Your task to perform on an android device: Search for flights from NYC to Buenos aires Image 0: 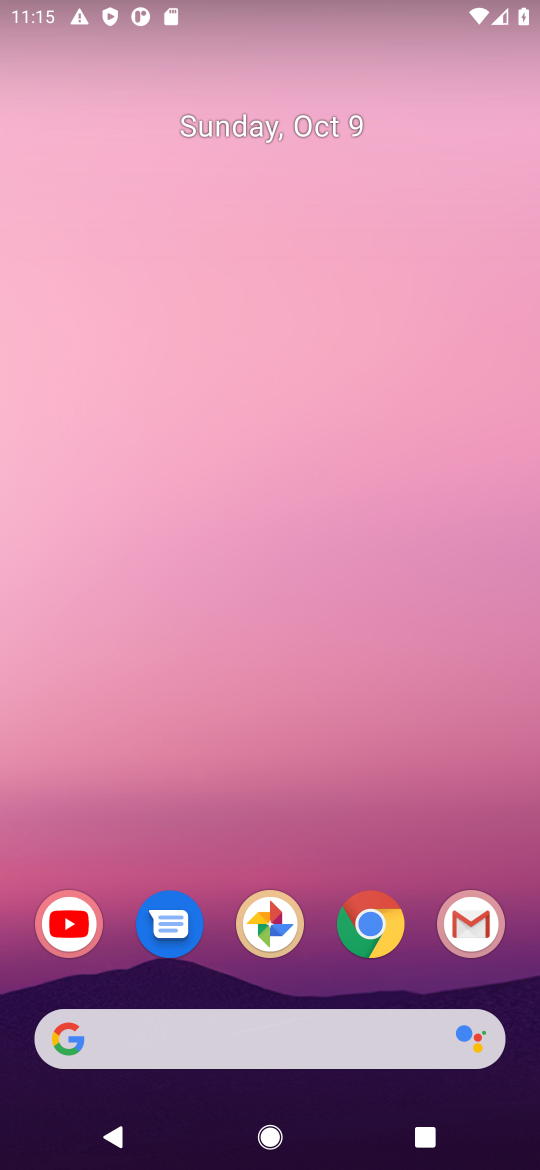
Step 0: drag from (290, 991) to (261, 47)
Your task to perform on an android device: Search for flights from NYC to Buenos aires Image 1: 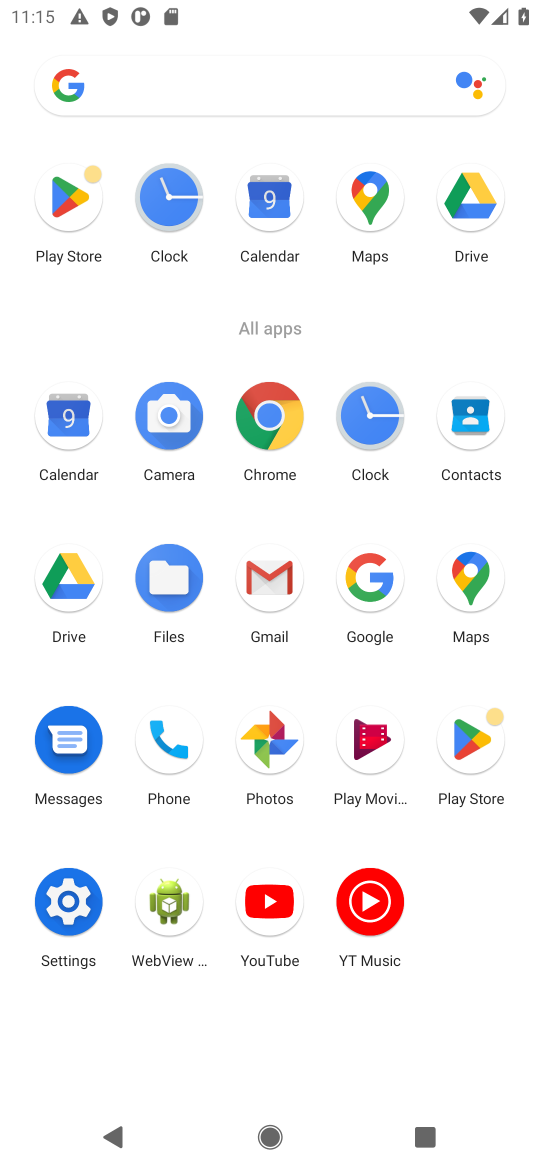
Step 1: click (259, 410)
Your task to perform on an android device: Search for flights from NYC to Buenos aires Image 2: 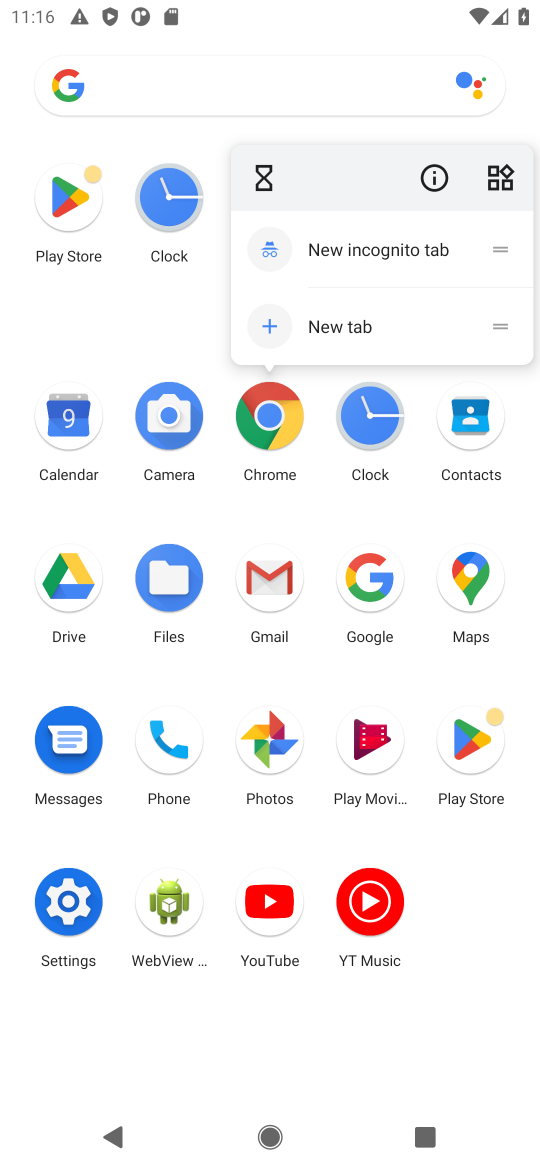
Step 2: click (261, 410)
Your task to perform on an android device: Search for flights from NYC to Buenos aires Image 3: 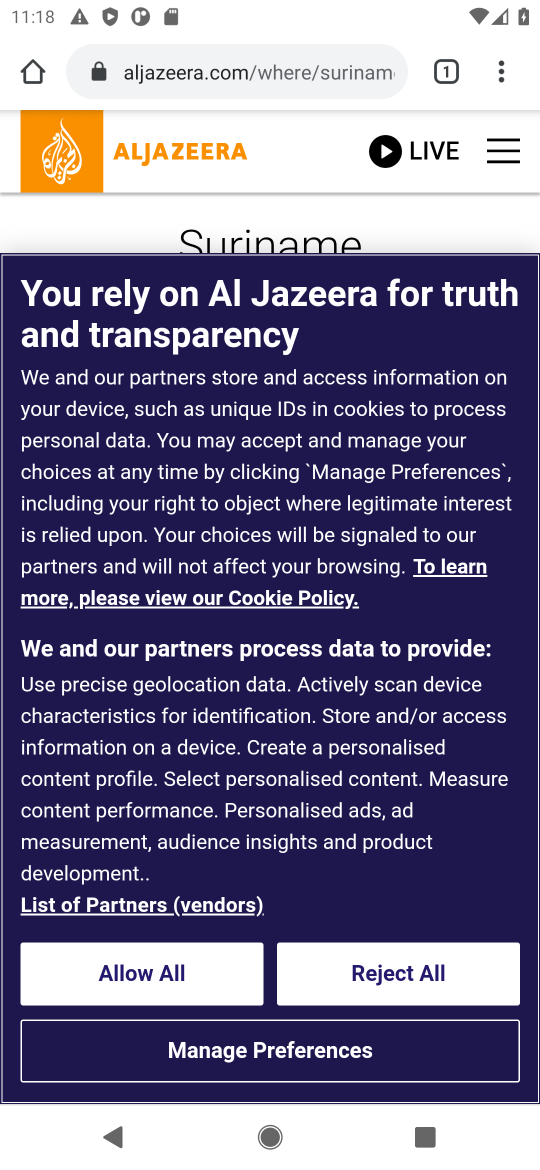
Step 3: click (336, 66)
Your task to perform on an android device: Search for flights from NYC to Buenos aires Image 4: 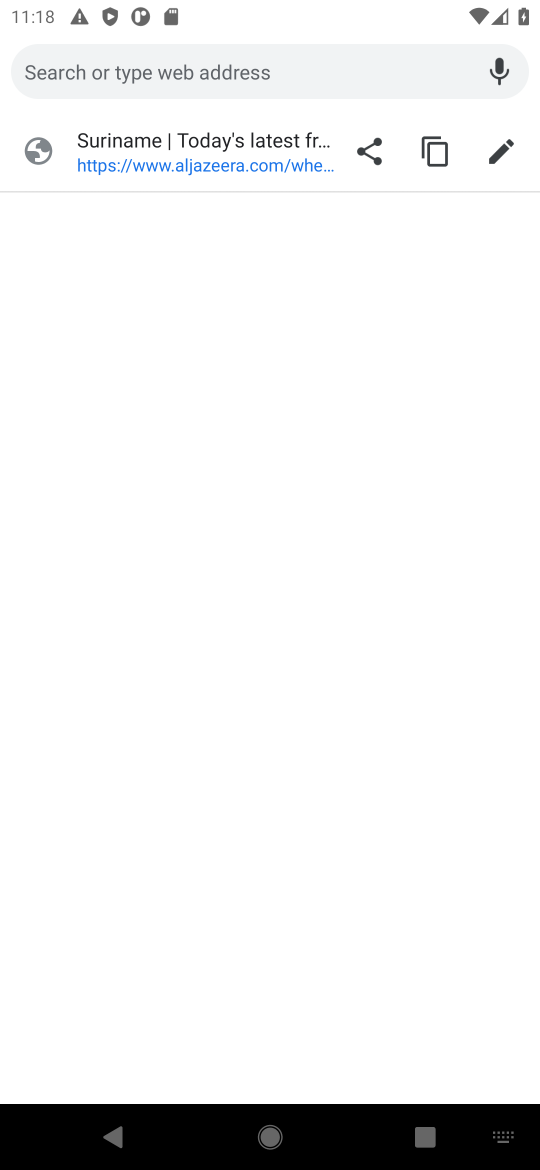
Step 4: type "flights from NYC to Buenos aires"
Your task to perform on an android device: Search for flights from NYC to Buenos aires Image 5: 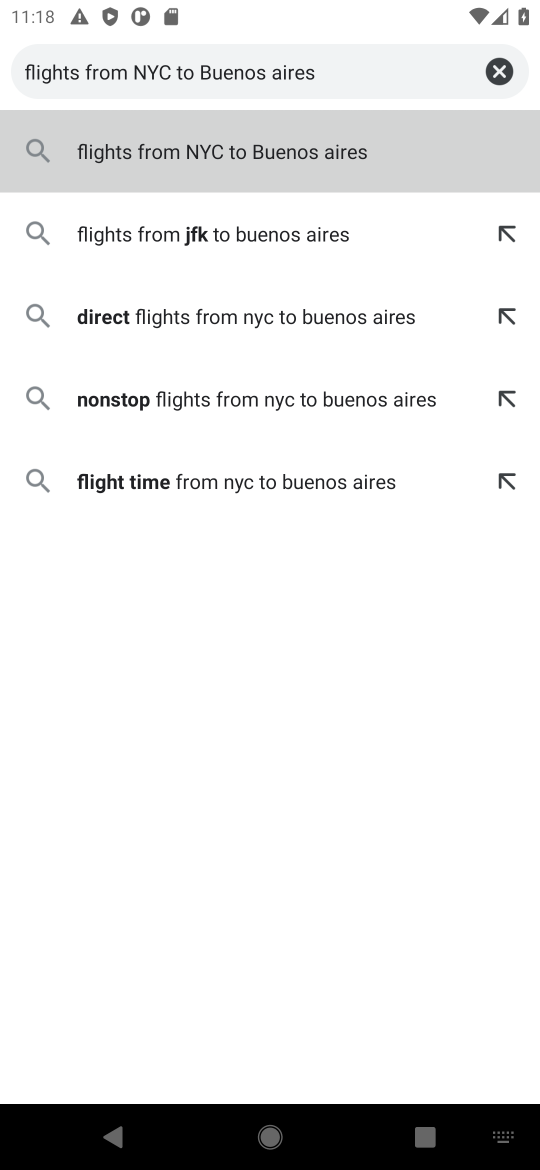
Step 5: press enter
Your task to perform on an android device: Search for flights from NYC to Buenos aires Image 6: 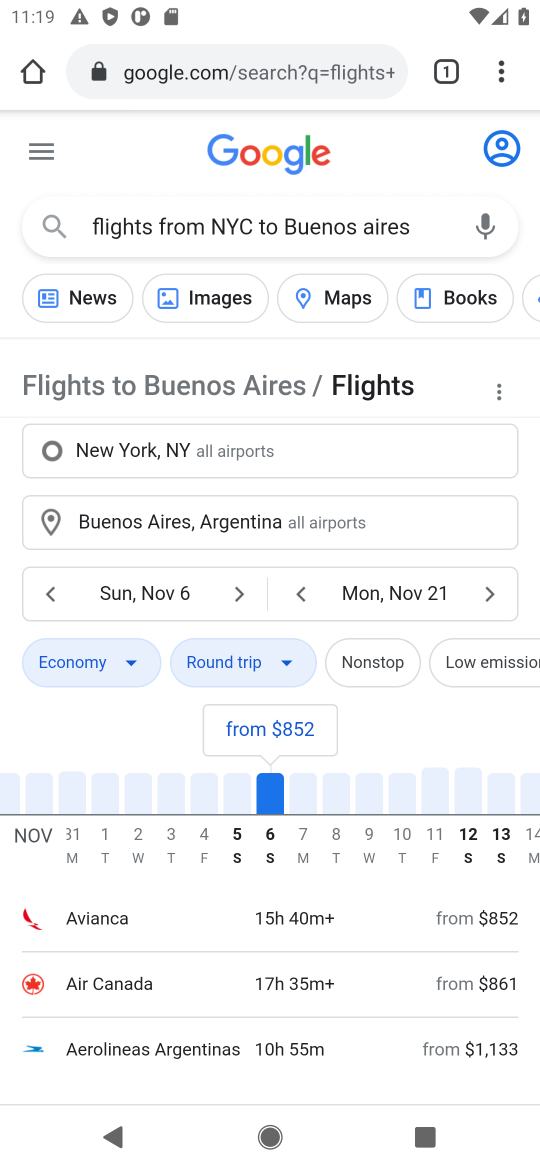
Step 6: task complete